Your task to perform on an android device: turn on the 24-hour format for clock Image 0: 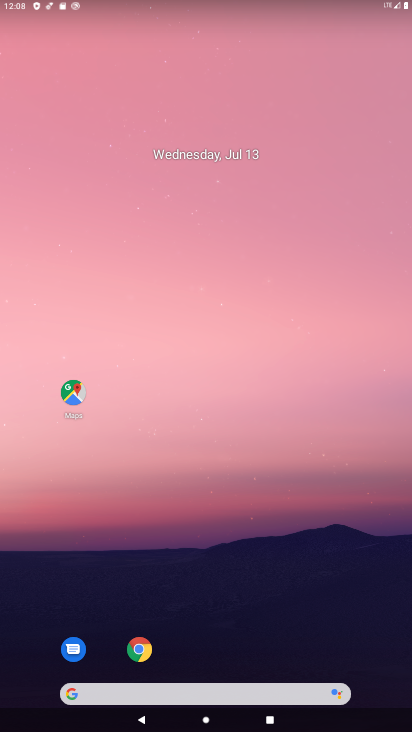
Step 0: drag from (239, 634) to (226, 4)
Your task to perform on an android device: turn on the 24-hour format for clock Image 1: 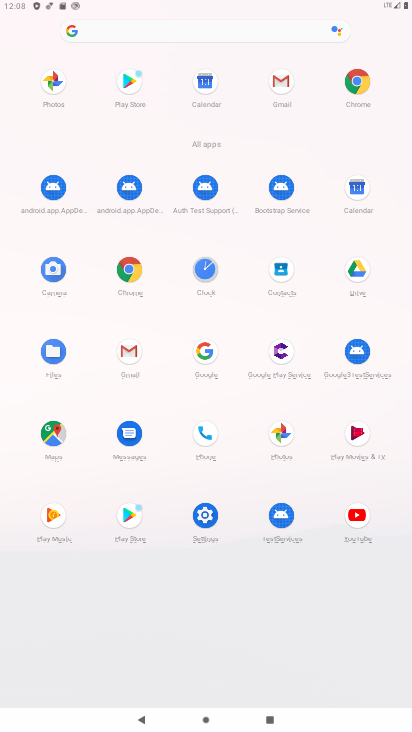
Step 1: click (204, 269)
Your task to perform on an android device: turn on the 24-hour format for clock Image 2: 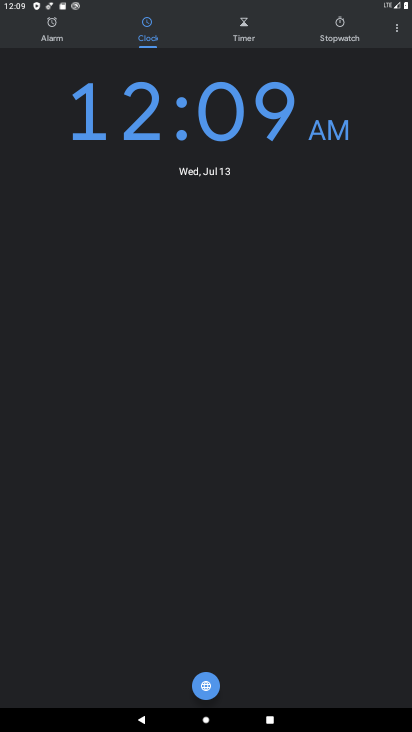
Step 2: click (403, 28)
Your task to perform on an android device: turn on the 24-hour format for clock Image 3: 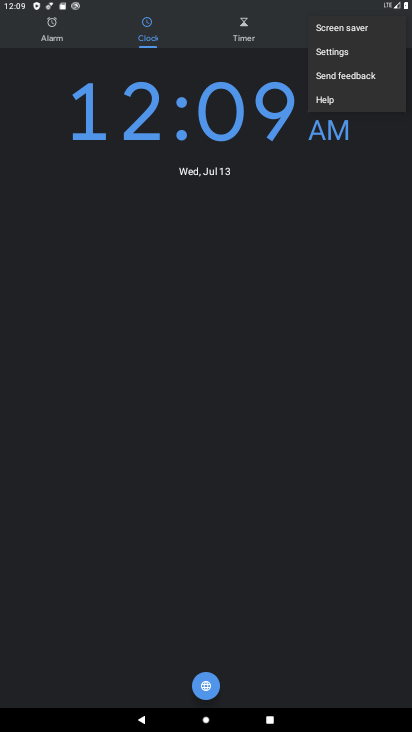
Step 3: click (342, 55)
Your task to perform on an android device: turn on the 24-hour format for clock Image 4: 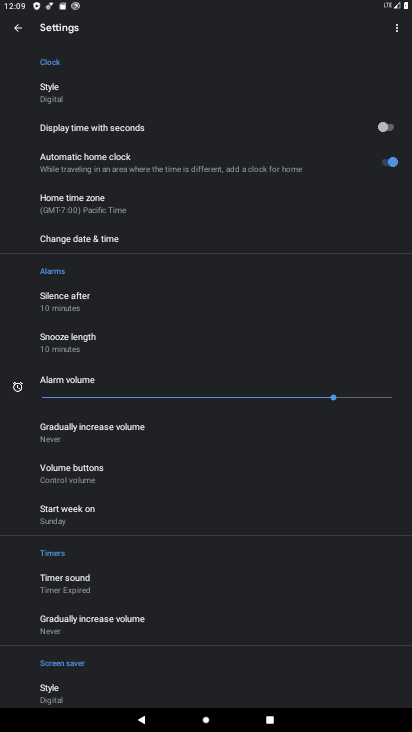
Step 4: click (95, 238)
Your task to perform on an android device: turn on the 24-hour format for clock Image 5: 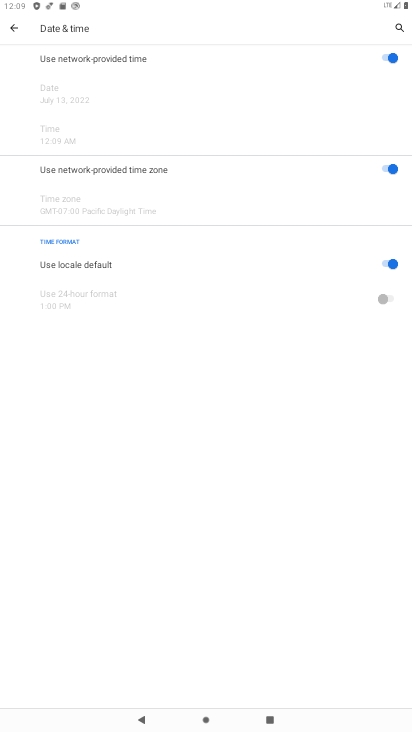
Step 5: click (393, 266)
Your task to perform on an android device: turn on the 24-hour format for clock Image 6: 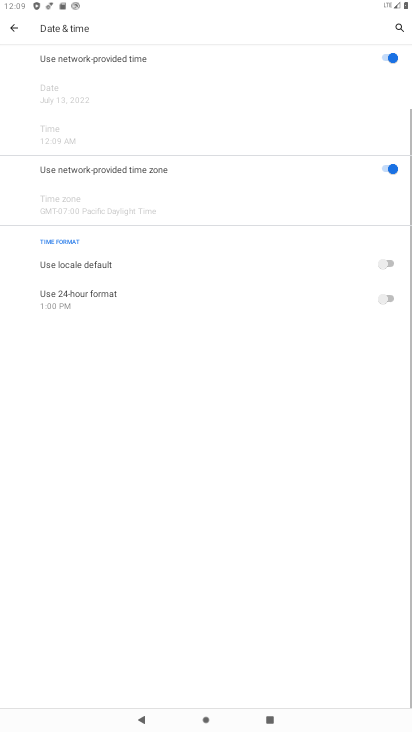
Step 6: click (394, 308)
Your task to perform on an android device: turn on the 24-hour format for clock Image 7: 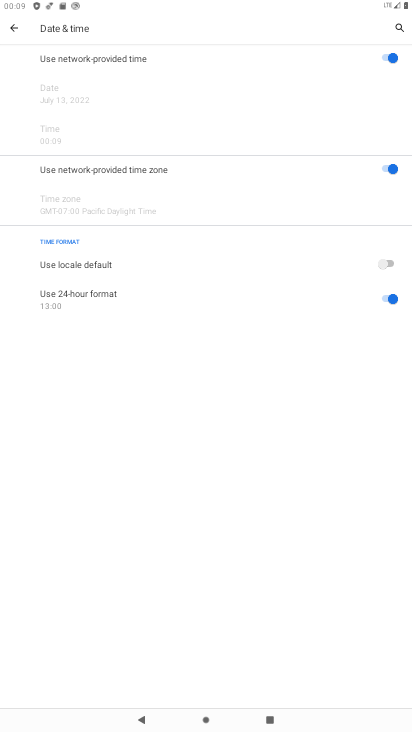
Step 7: task complete